Your task to perform on an android device: turn on airplane mode Image 0: 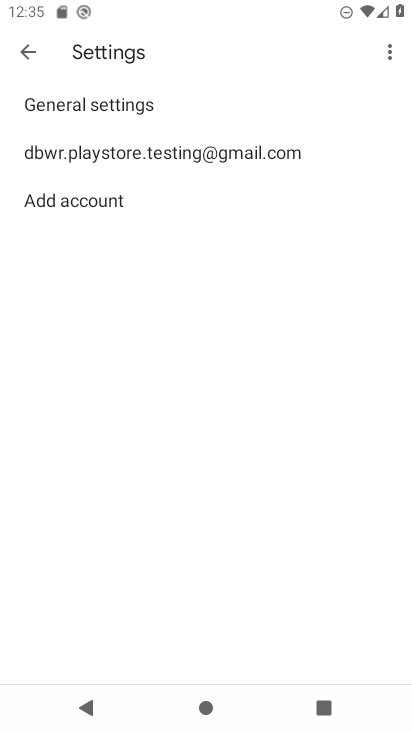
Step 0: press home button
Your task to perform on an android device: turn on airplane mode Image 1: 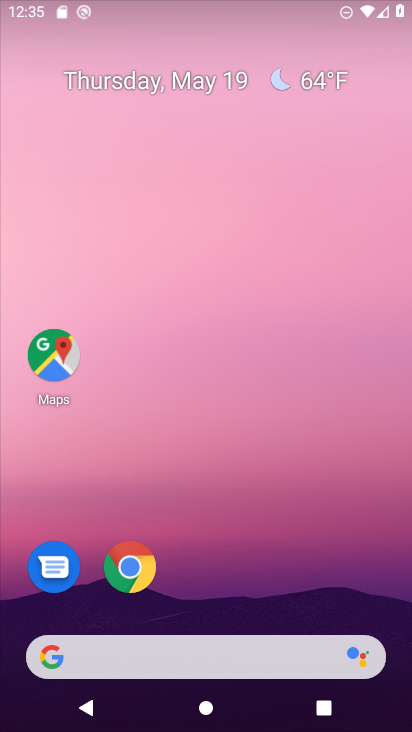
Step 1: drag from (266, 589) to (335, 118)
Your task to perform on an android device: turn on airplane mode Image 2: 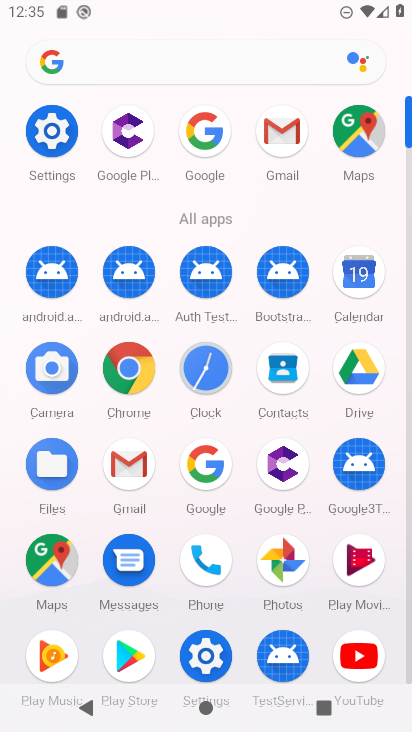
Step 2: click (45, 146)
Your task to perform on an android device: turn on airplane mode Image 3: 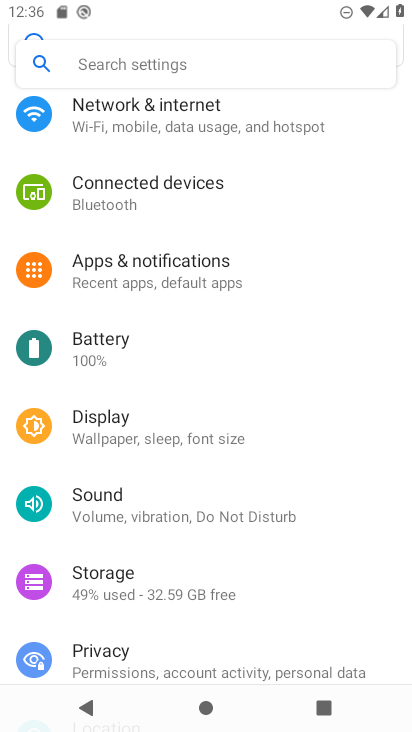
Step 3: click (204, 123)
Your task to perform on an android device: turn on airplane mode Image 4: 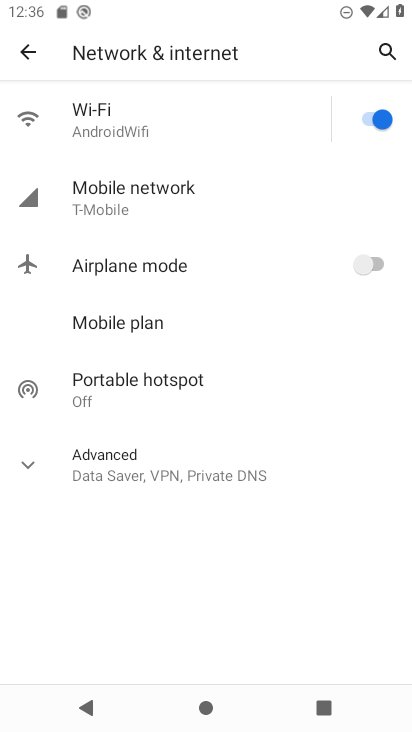
Step 4: click (364, 259)
Your task to perform on an android device: turn on airplane mode Image 5: 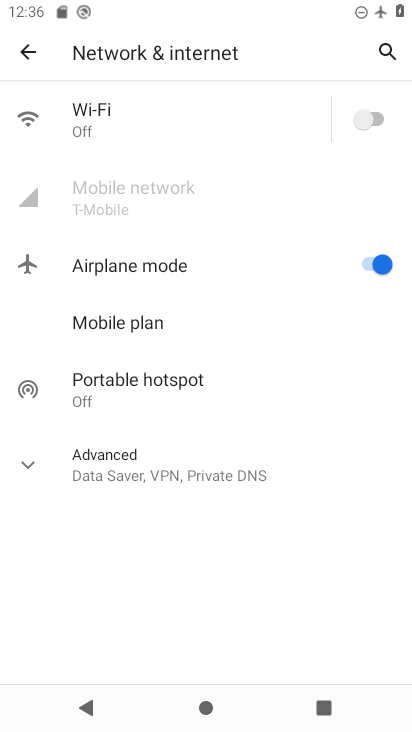
Step 5: task complete